Your task to perform on an android device: Open Youtube and go to "Your channel" Image 0: 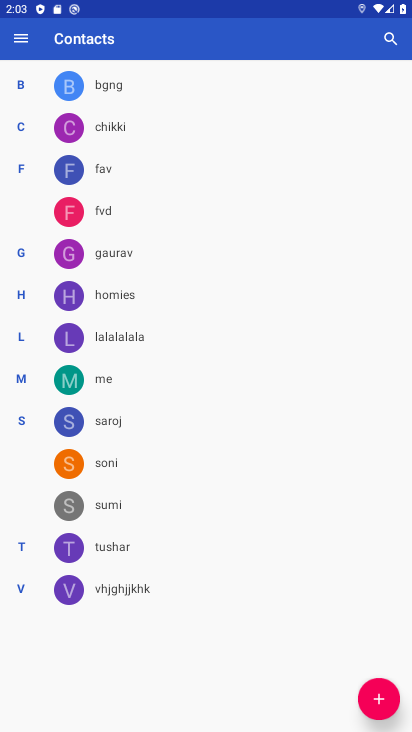
Step 0: press home button
Your task to perform on an android device: Open Youtube and go to "Your channel" Image 1: 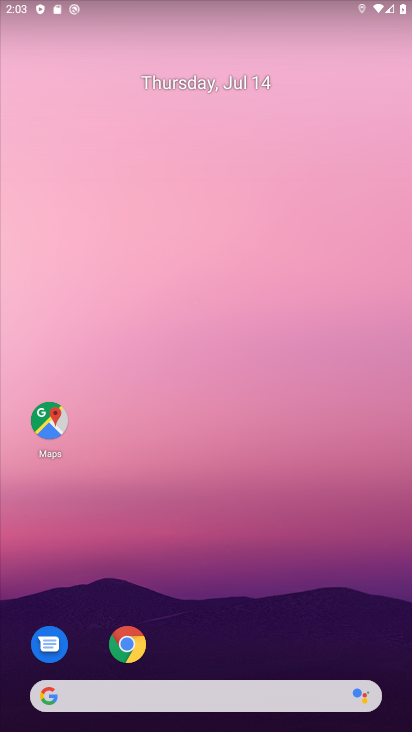
Step 1: drag from (261, 662) to (197, 177)
Your task to perform on an android device: Open Youtube and go to "Your channel" Image 2: 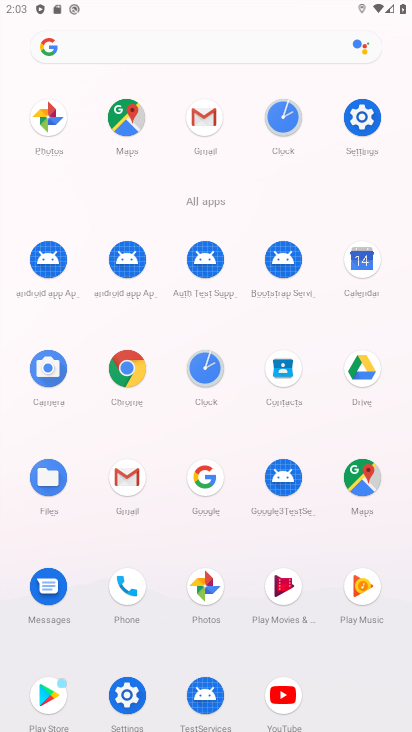
Step 2: click (277, 690)
Your task to perform on an android device: Open Youtube and go to "Your channel" Image 3: 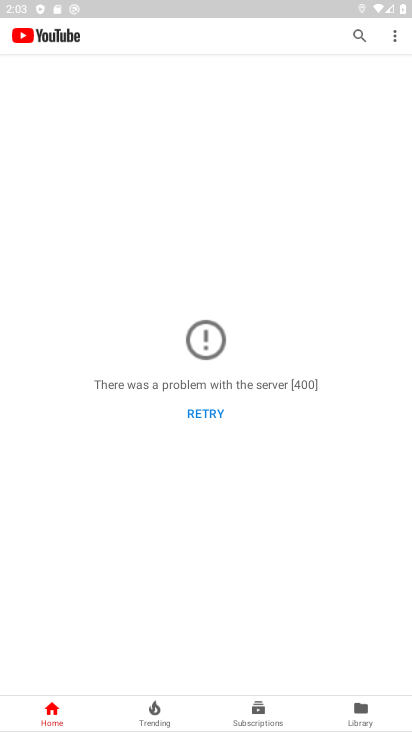
Step 3: task complete